Your task to perform on an android device: Add "lenovo thinkpad" to the cart on ebay Image 0: 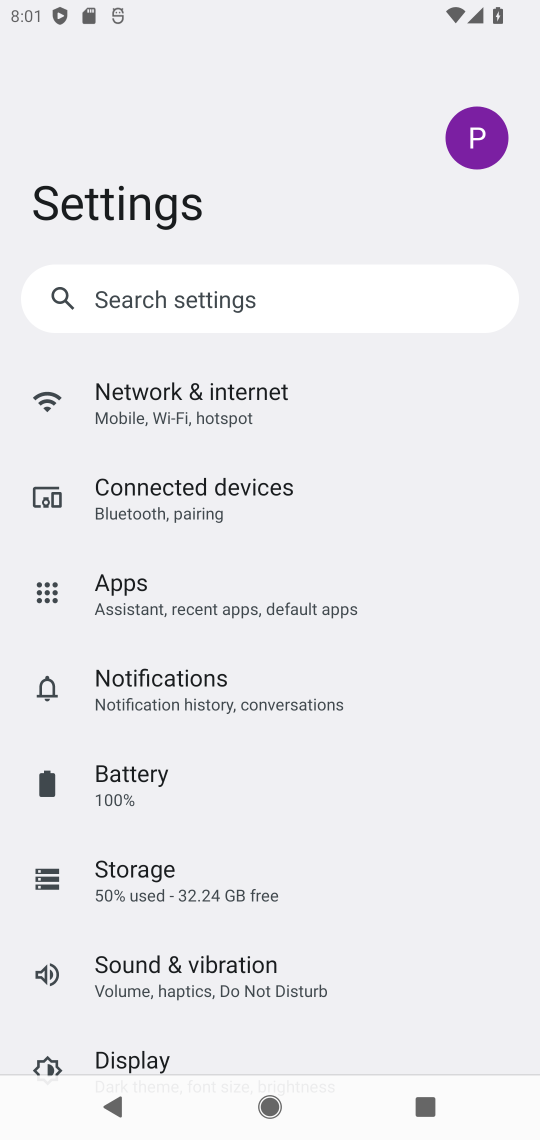
Step 0: press home button
Your task to perform on an android device: Add "lenovo thinkpad" to the cart on ebay Image 1: 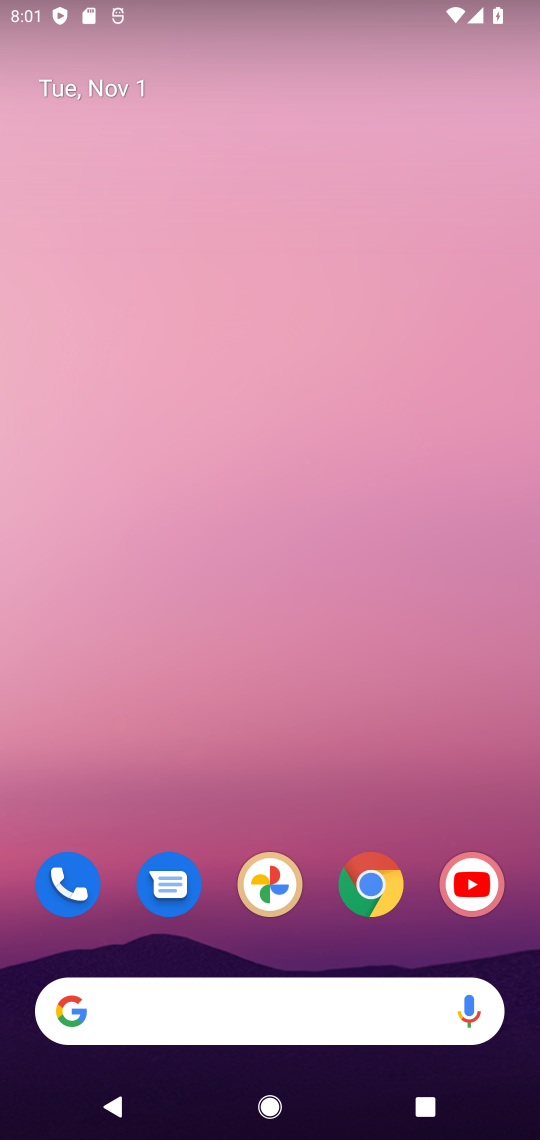
Step 1: click (371, 884)
Your task to perform on an android device: Add "lenovo thinkpad" to the cart on ebay Image 2: 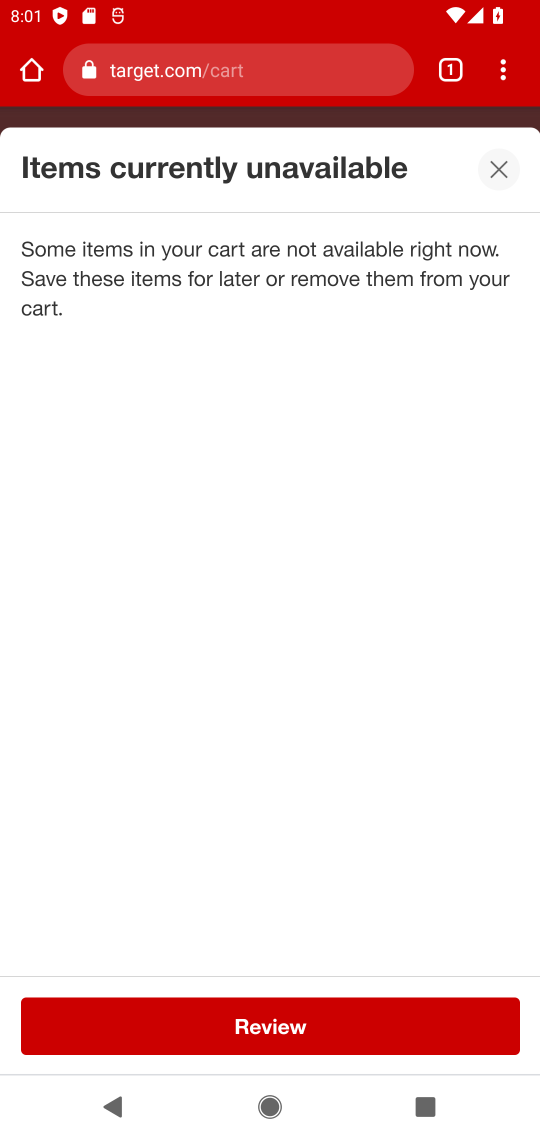
Step 2: click (306, 77)
Your task to perform on an android device: Add "lenovo thinkpad" to the cart on ebay Image 3: 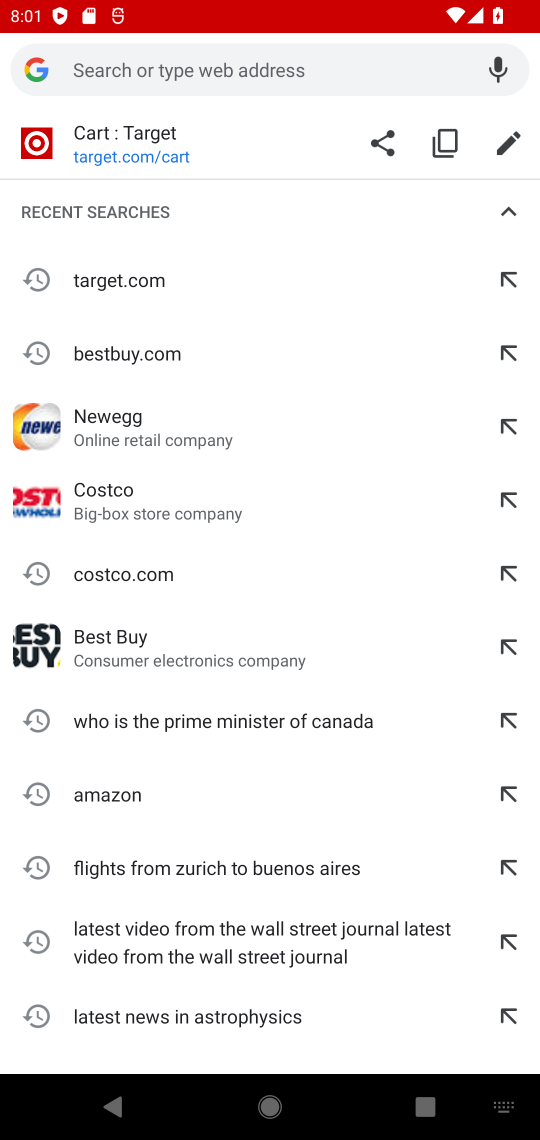
Step 3: type "ebay"
Your task to perform on an android device: Add "lenovo thinkpad" to the cart on ebay Image 4: 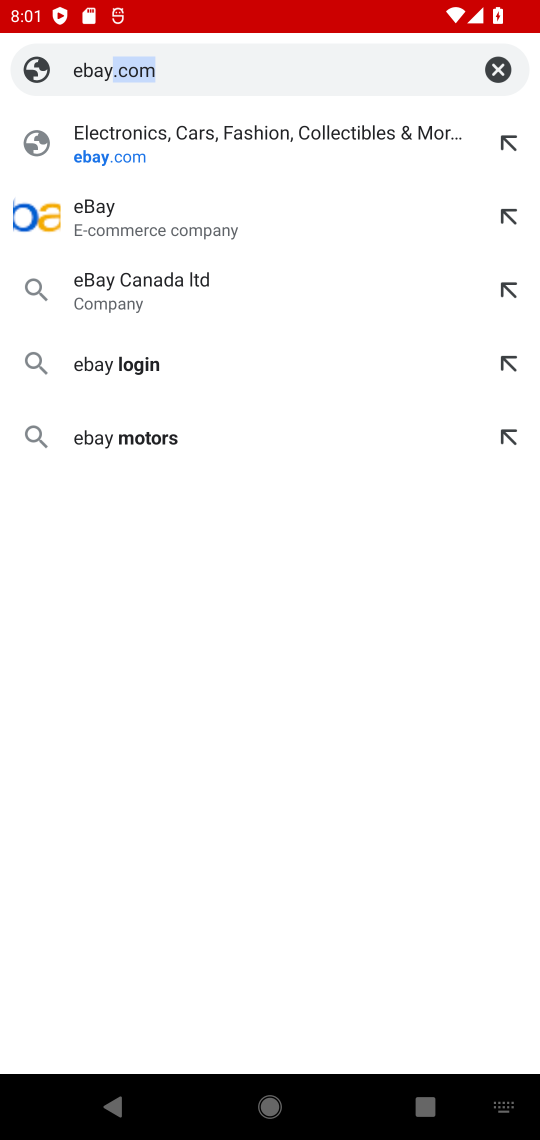
Step 4: click (91, 220)
Your task to perform on an android device: Add "lenovo thinkpad" to the cart on ebay Image 5: 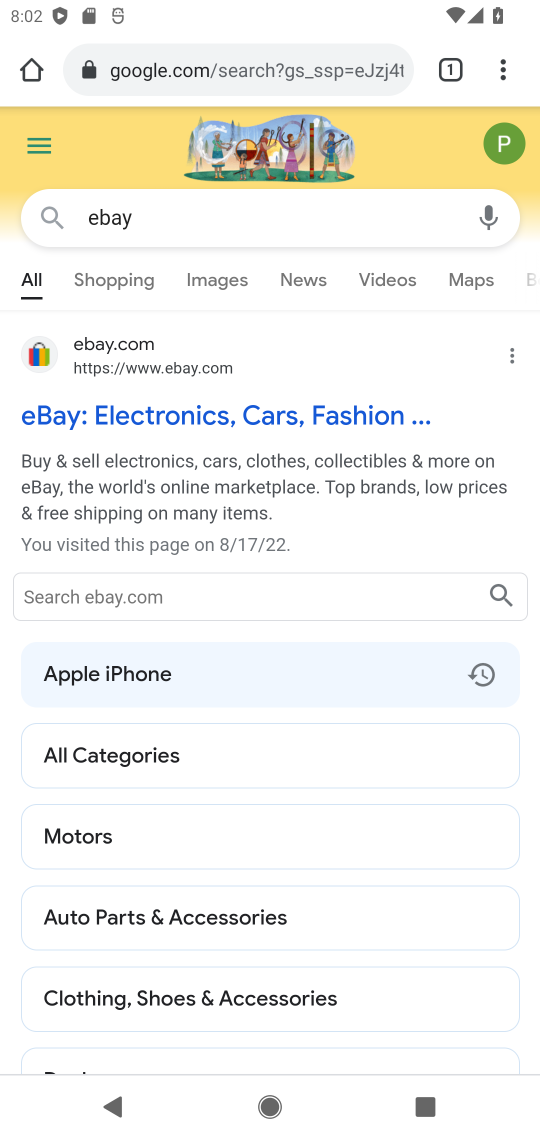
Step 5: click (74, 416)
Your task to perform on an android device: Add "lenovo thinkpad" to the cart on ebay Image 6: 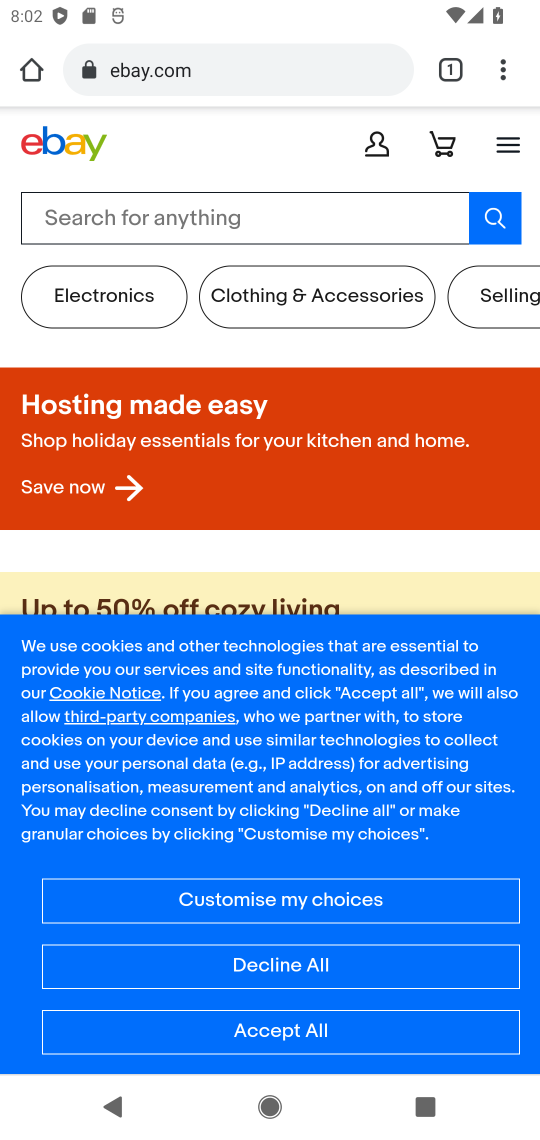
Step 6: click (270, 1024)
Your task to perform on an android device: Add "lenovo thinkpad" to the cart on ebay Image 7: 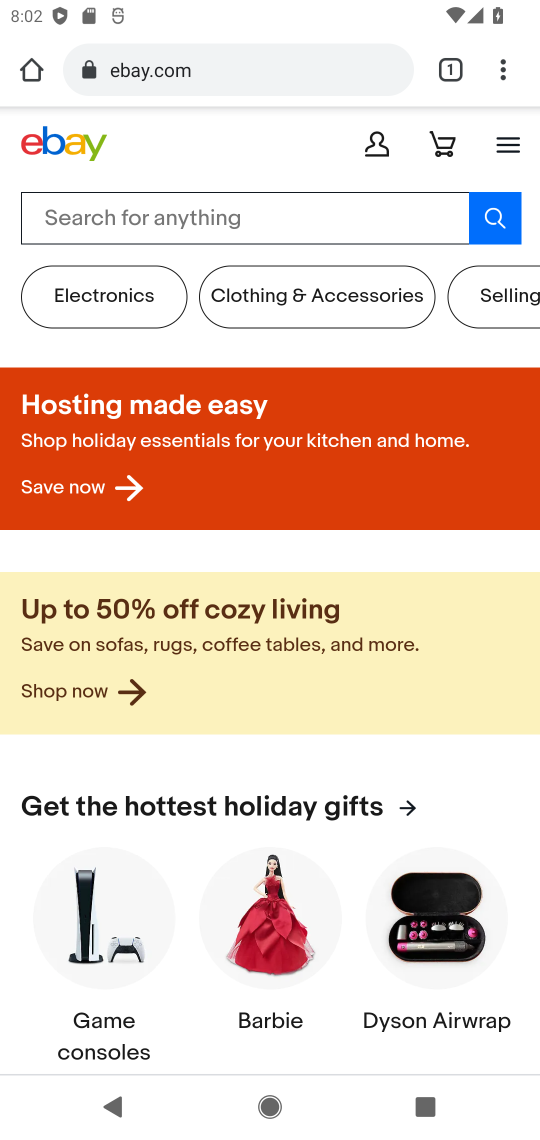
Step 7: click (226, 216)
Your task to perform on an android device: Add "lenovo thinkpad" to the cart on ebay Image 8: 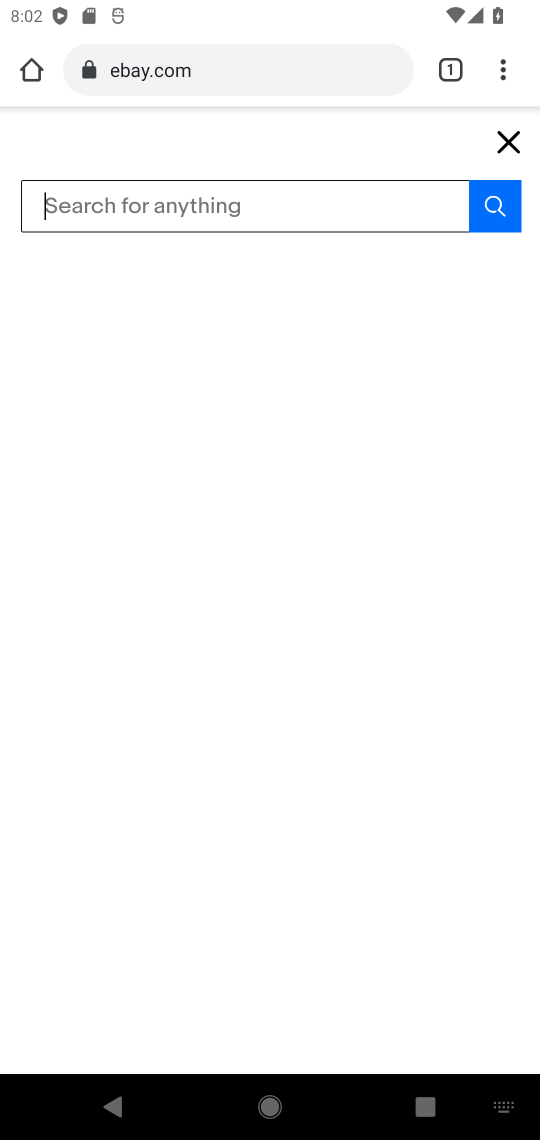
Step 8: type "lenovo thinkpad"
Your task to perform on an android device: Add "lenovo thinkpad" to the cart on ebay Image 9: 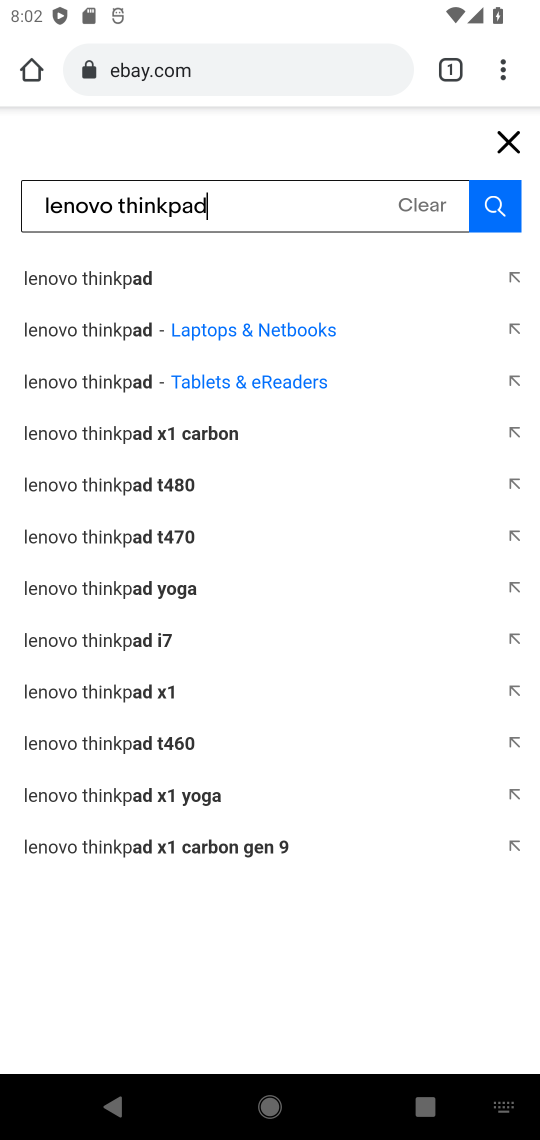
Step 9: click (492, 207)
Your task to perform on an android device: Add "lenovo thinkpad" to the cart on ebay Image 10: 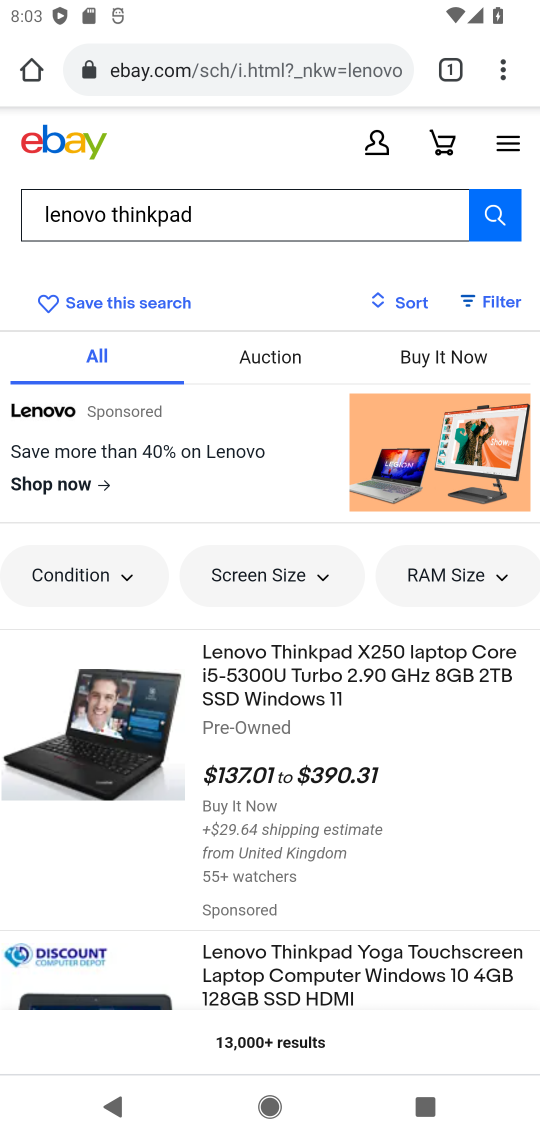
Step 10: click (281, 689)
Your task to perform on an android device: Add "lenovo thinkpad" to the cart on ebay Image 11: 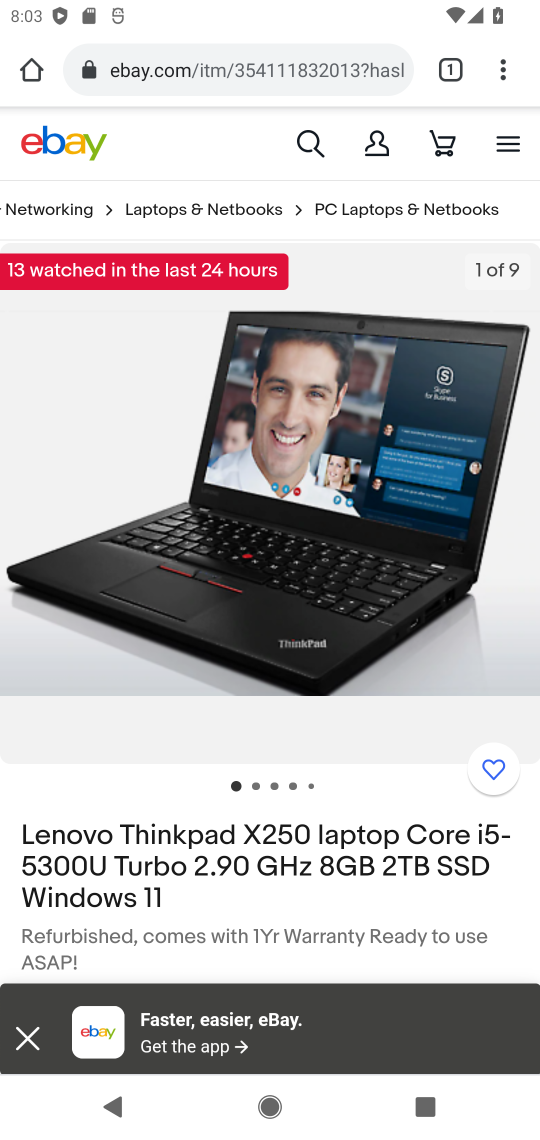
Step 11: drag from (329, 904) to (407, 519)
Your task to perform on an android device: Add "lenovo thinkpad" to the cart on ebay Image 12: 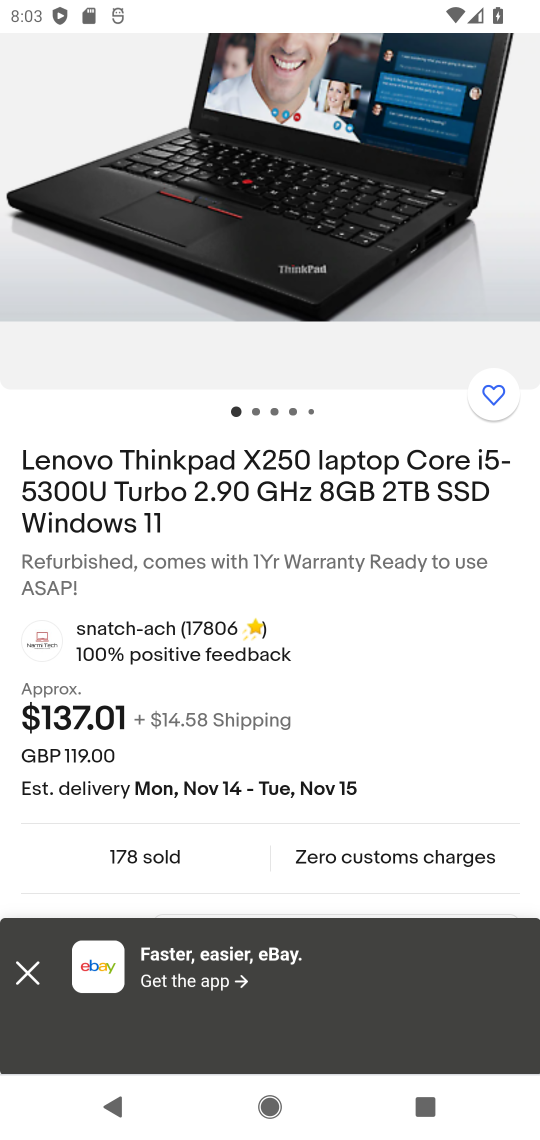
Step 12: drag from (378, 759) to (377, 437)
Your task to perform on an android device: Add "lenovo thinkpad" to the cart on ebay Image 13: 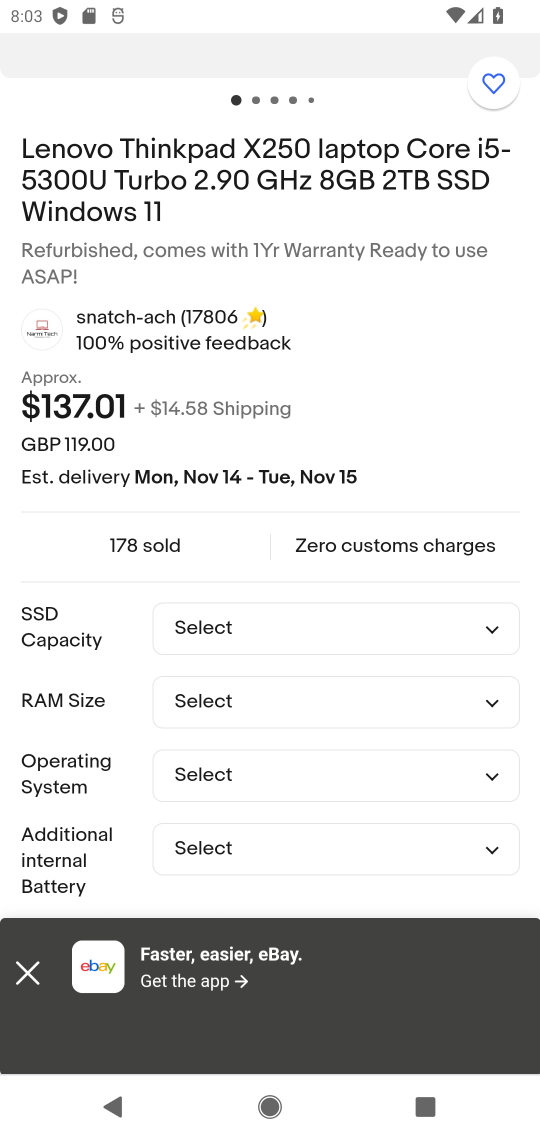
Step 13: click (371, 624)
Your task to perform on an android device: Add "lenovo thinkpad" to the cart on ebay Image 14: 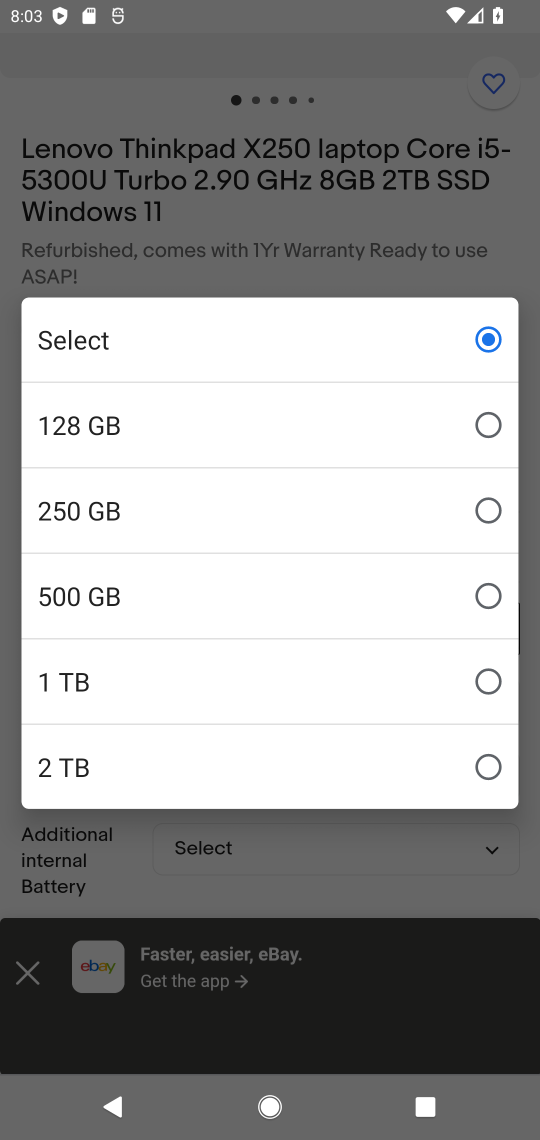
Step 14: click (481, 420)
Your task to perform on an android device: Add "lenovo thinkpad" to the cart on ebay Image 15: 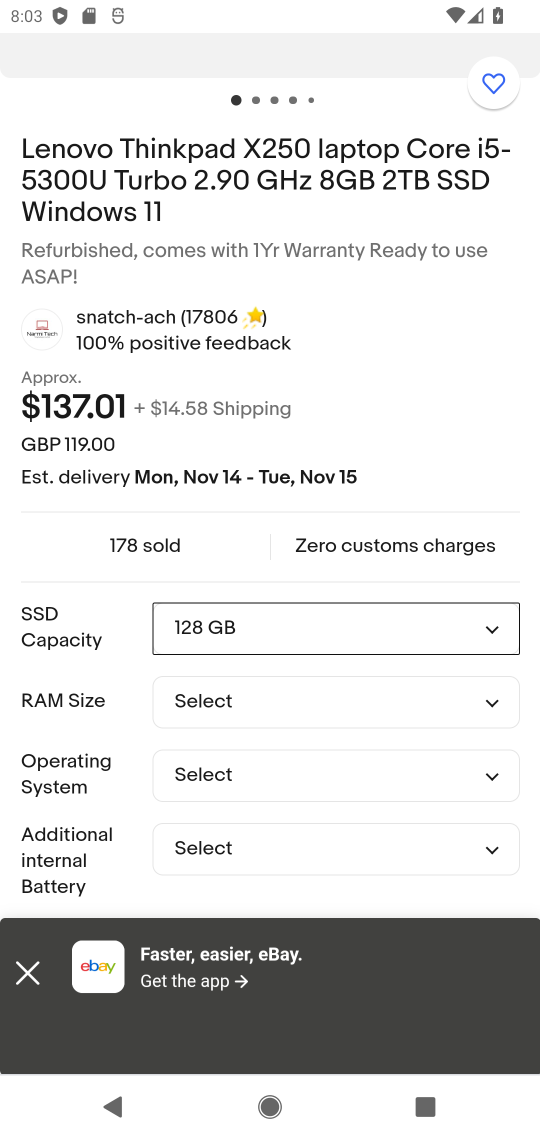
Step 15: click (403, 716)
Your task to perform on an android device: Add "lenovo thinkpad" to the cart on ebay Image 16: 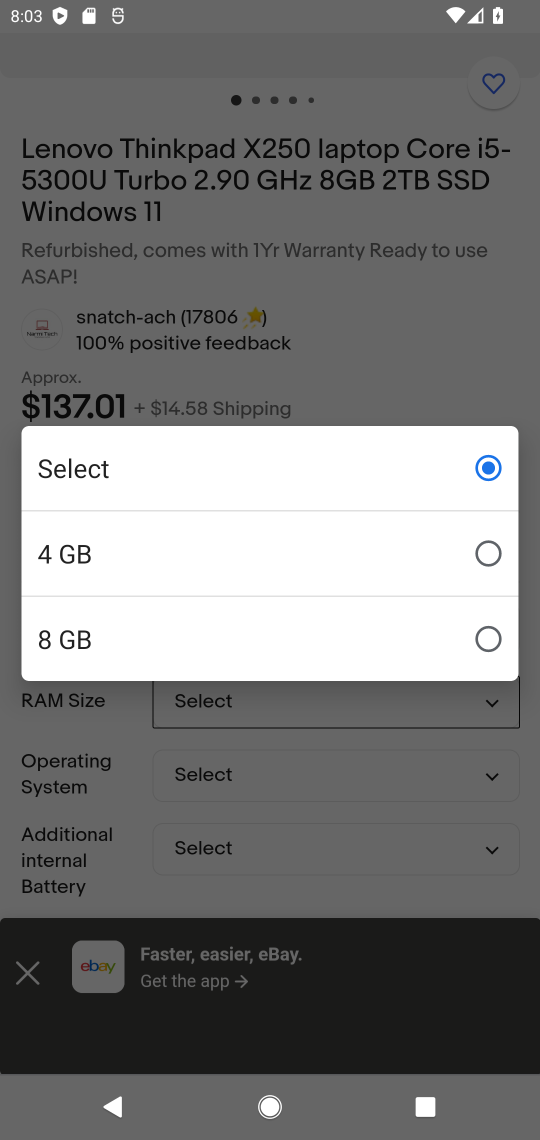
Step 16: click (489, 551)
Your task to perform on an android device: Add "lenovo thinkpad" to the cart on ebay Image 17: 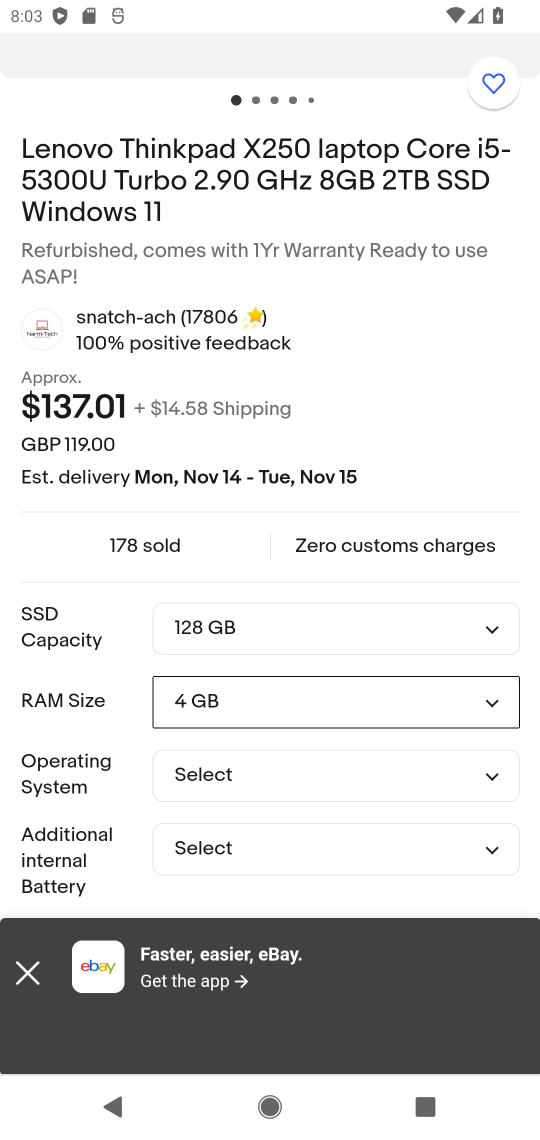
Step 17: click (428, 777)
Your task to perform on an android device: Add "lenovo thinkpad" to the cart on ebay Image 18: 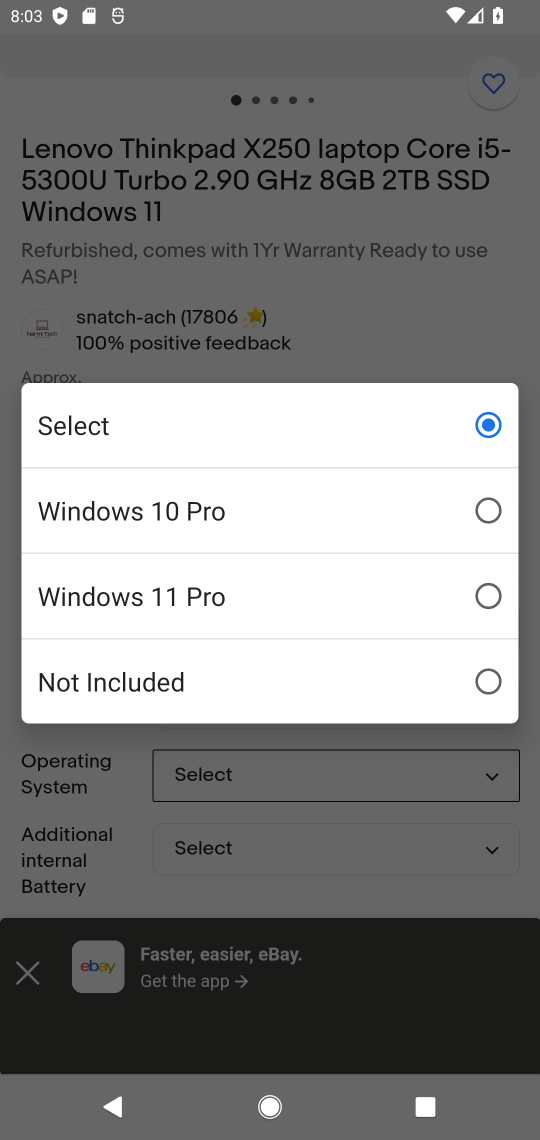
Step 18: click (391, 512)
Your task to perform on an android device: Add "lenovo thinkpad" to the cart on ebay Image 19: 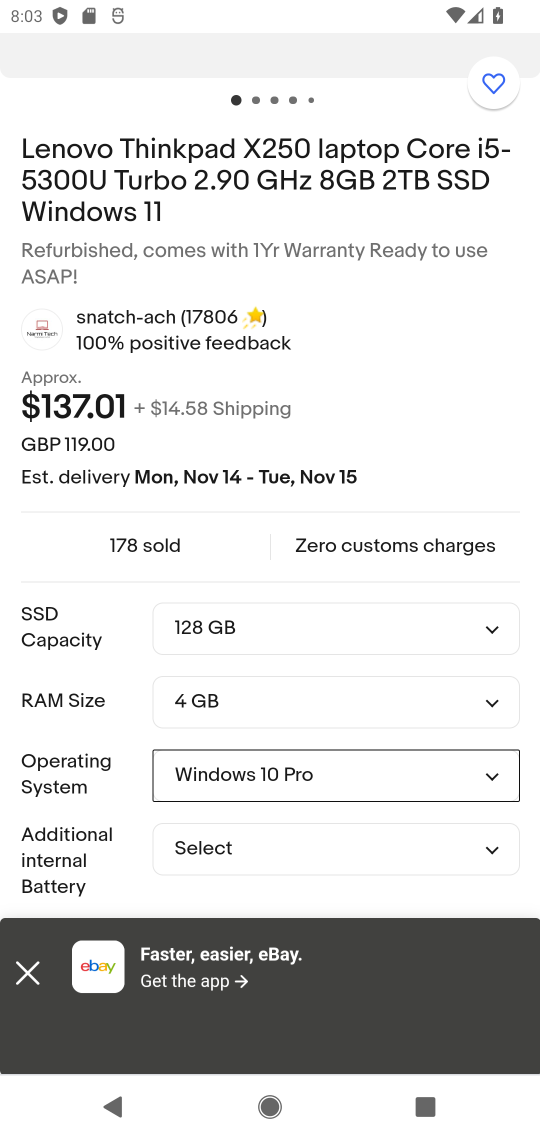
Step 19: click (424, 837)
Your task to perform on an android device: Add "lenovo thinkpad" to the cart on ebay Image 20: 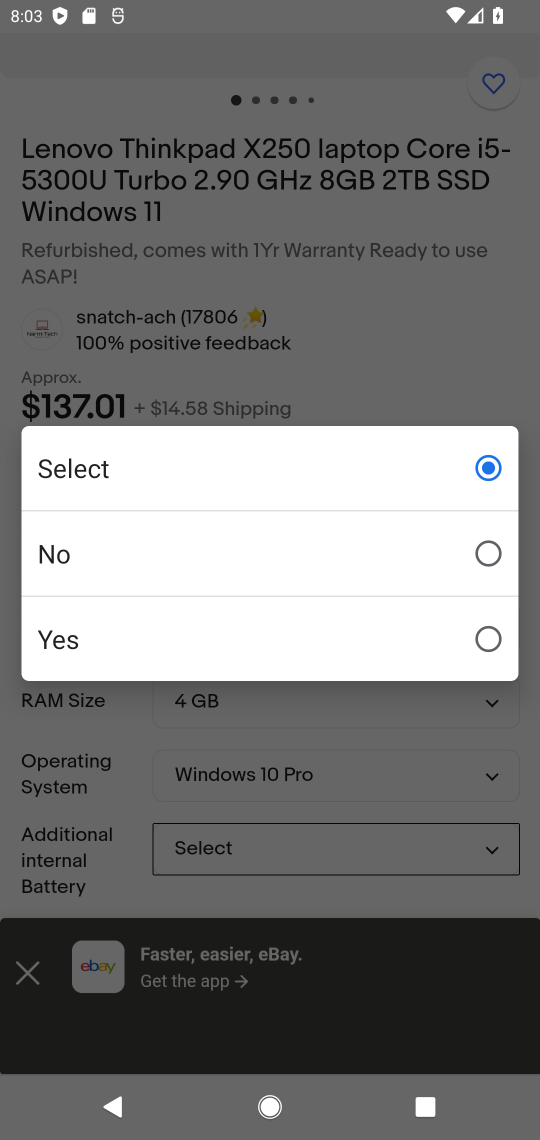
Step 20: click (91, 542)
Your task to perform on an android device: Add "lenovo thinkpad" to the cart on ebay Image 21: 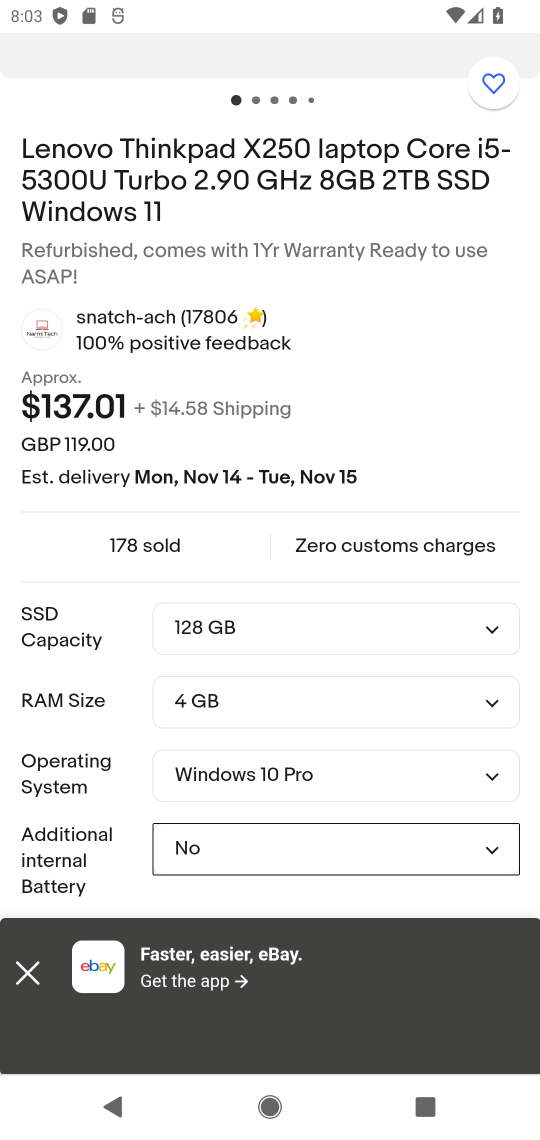
Step 21: drag from (332, 750) to (342, 257)
Your task to perform on an android device: Add "lenovo thinkpad" to the cart on ebay Image 22: 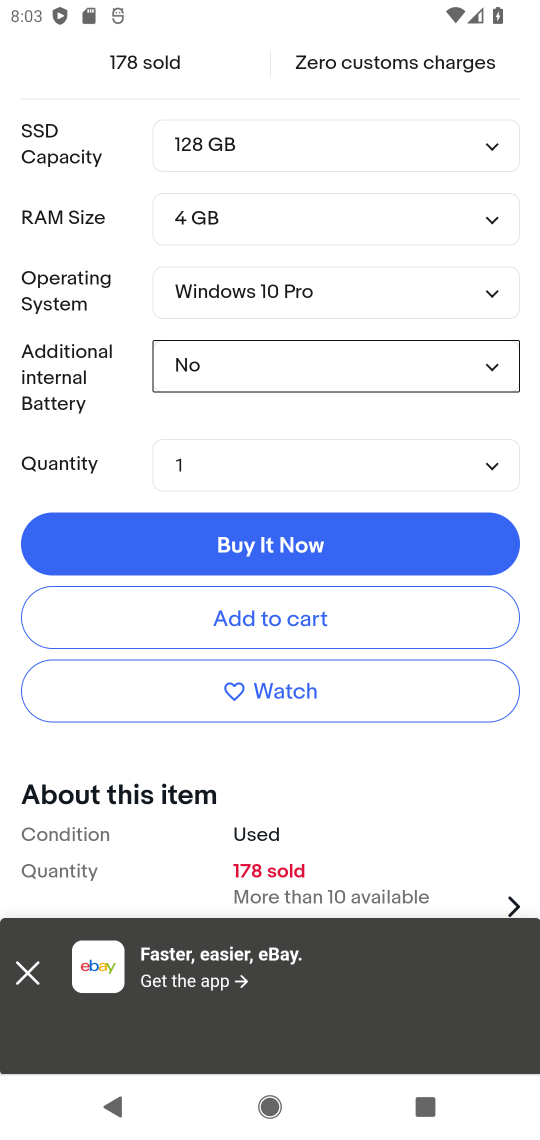
Step 22: click (295, 623)
Your task to perform on an android device: Add "lenovo thinkpad" to the cart on ebay Image 23: 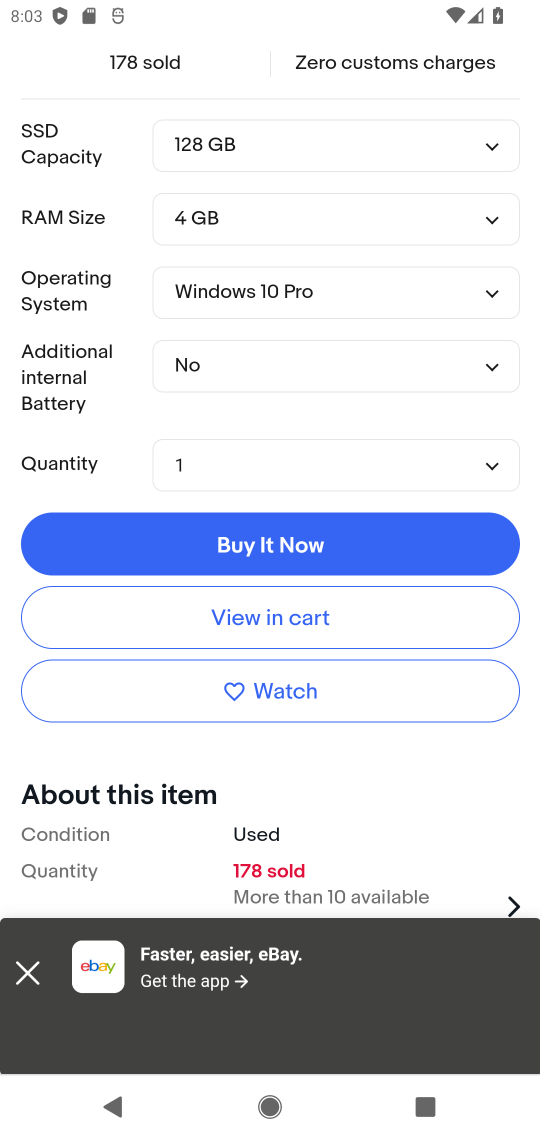
Step 23: click (295, 623)
Your task to perform on an android device: Add "lenovo thinkpad" to the cart on ebay Image 24: 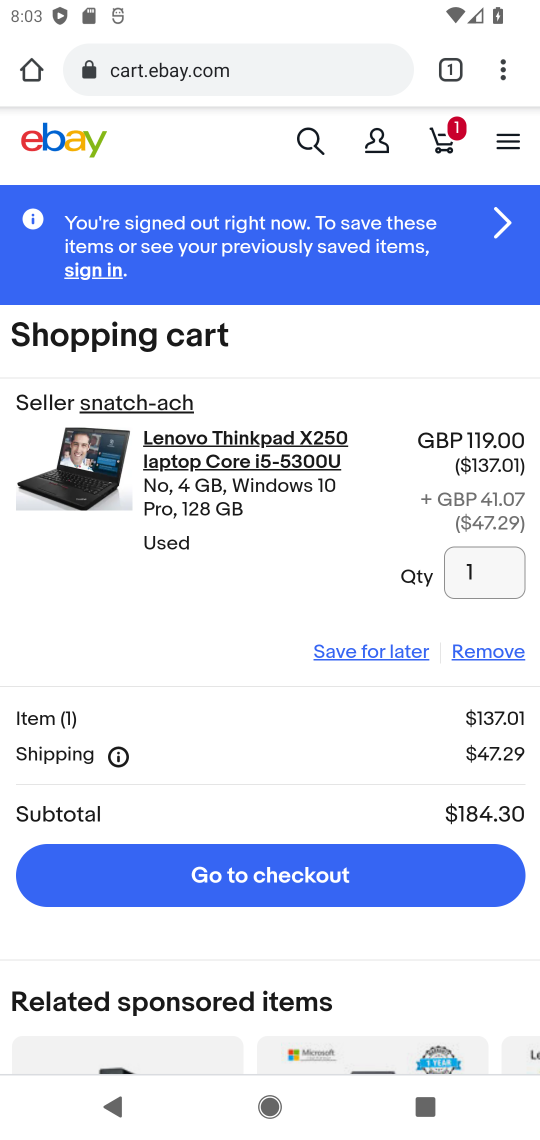
Step 24: task complete